Your task to perform on an android device: stop showing notifications on the lock screen Image 0: 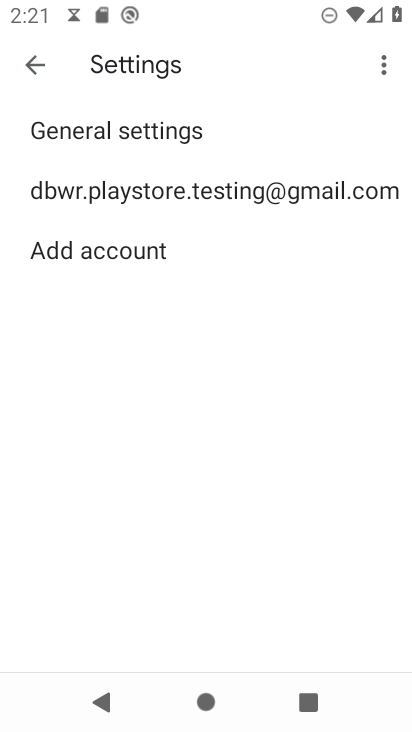
Step 0: press home button
Your task to perform on an android device: stop showing notifications on the lock screen Image 1: 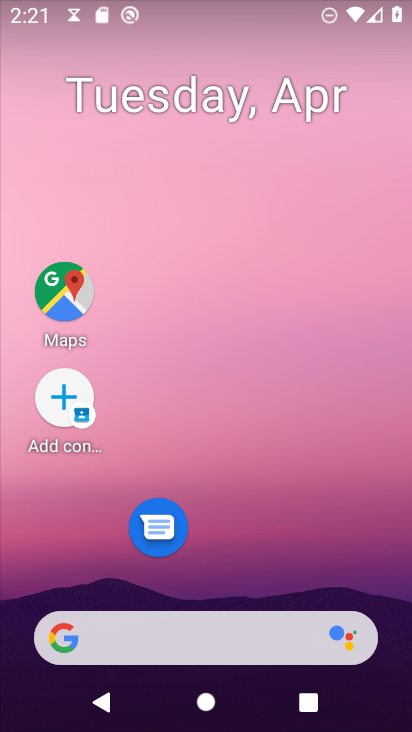
Step 1: drag from (259, 562) to (264, 82)
Your task to perform on an android device: stop showing notifications on the lock screen Image 2: 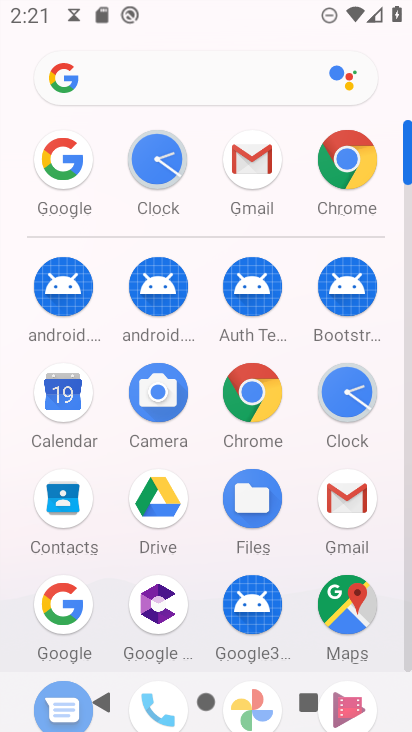
Step 2: drag from (291, 467) to (286, 279)
Your task to perform on an android device: stop showing notifications on the lock screen Image 3: 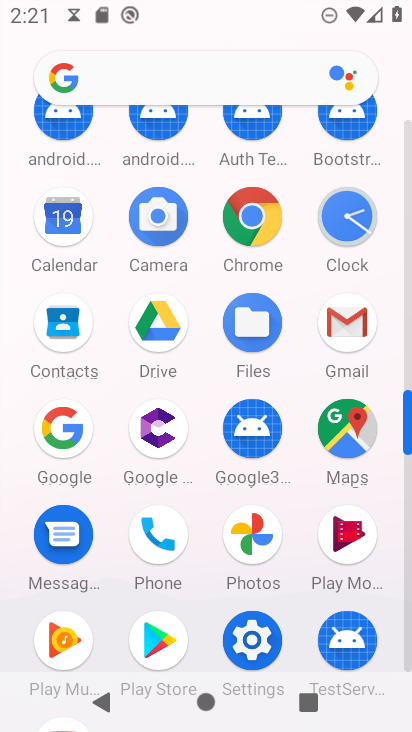
Step 3: click (250, 641)
Your task to perform on an android device: stop showing notifications on the lock screen Image 4: 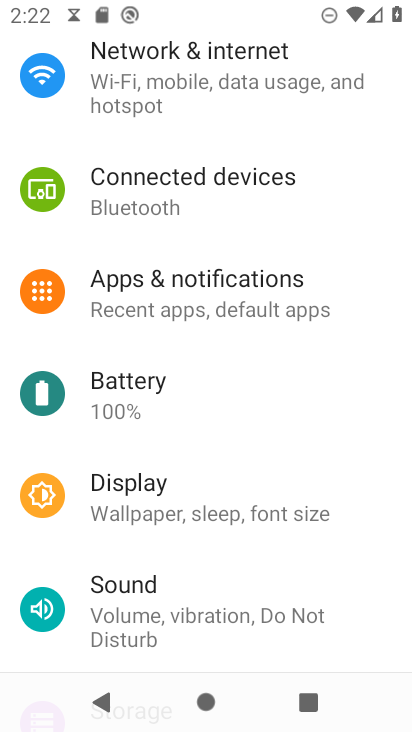
Step 4: click (281, 283)
Your task to perform on an android device: stop showing notifications on the lock screen Image 5: 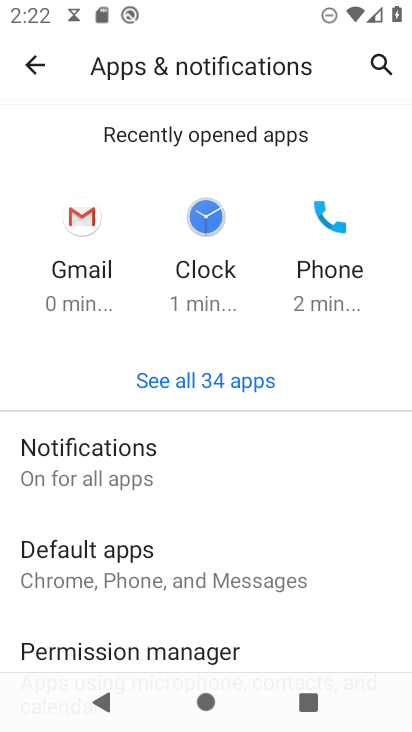
Step 5: click (144, 447)
Your task to perform on an android device: stop showing notifications on the lock screen Image 6: 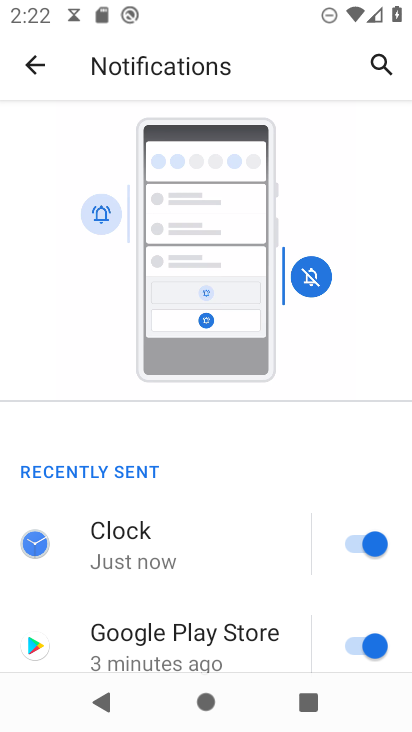
Step 6: drag from (217, 581) to (175, 451)
Your task to perform on an android device: stop showing notifications on the lock screen Image 7: 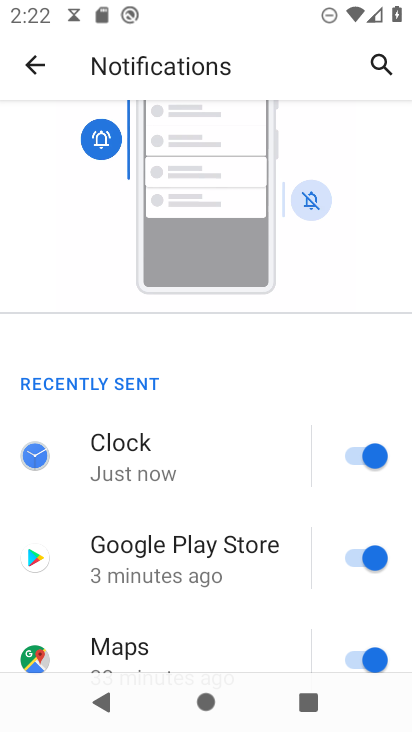
Step 7: drag from (201, 610) to (171, 451)
Your task to perform on an android device: stop showing notifications on the lock screen Image 8: 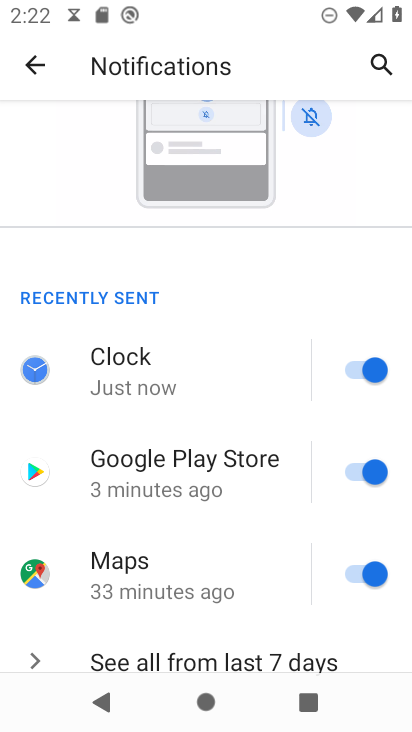
Step 8: drag from (192, 634) to (190, 448)
Your task to perform on an android device: stop showing notifications on the lock screen Image 9: 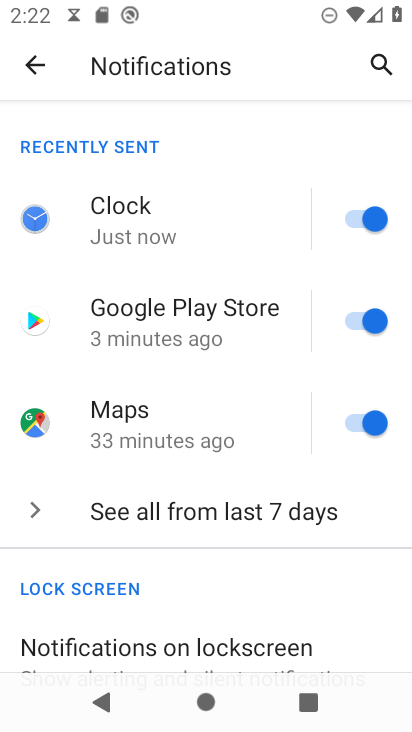
Step 9: drag from (193, 616) to (192, 479)
Your task to perform on an android device: stop showing notifications on the lock screen Image 10: 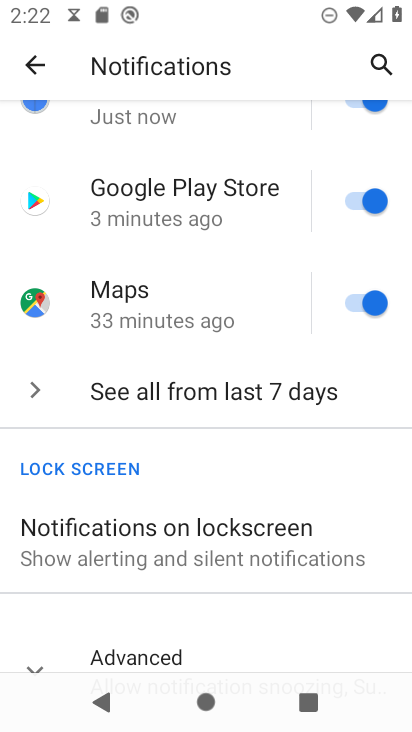
Step 10: click (199, 532)
Your task to perform on an android device: stop showing notifications on the lock screen Image 11: 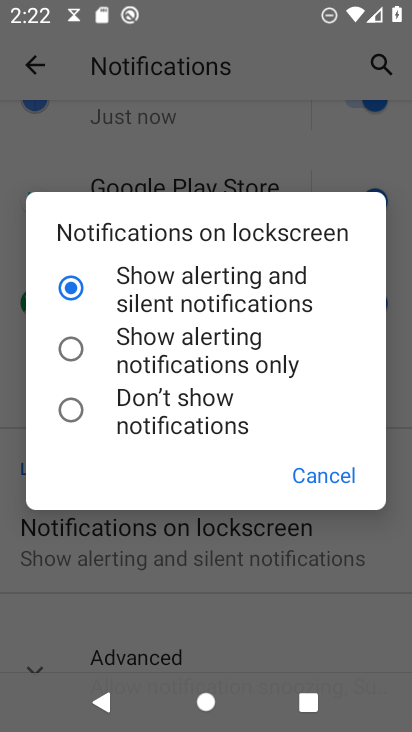
Step 11: click (70, 411)
Your task to perform on an android device: stop showing notifications on the lock screen Image 12: 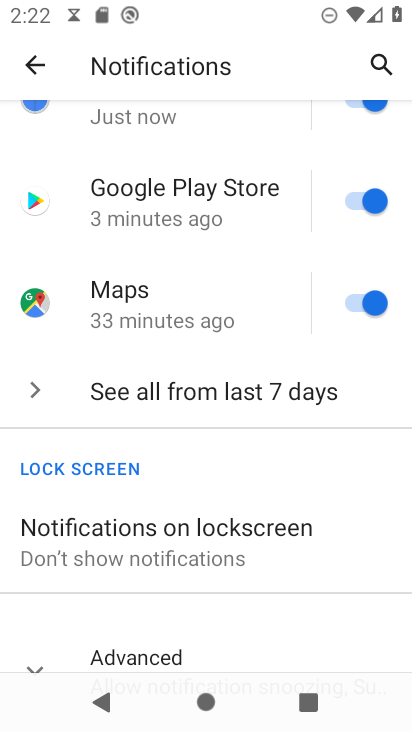
Step 12: task complete